Your task to perform on an android device: When is my next appointment? Image 0: 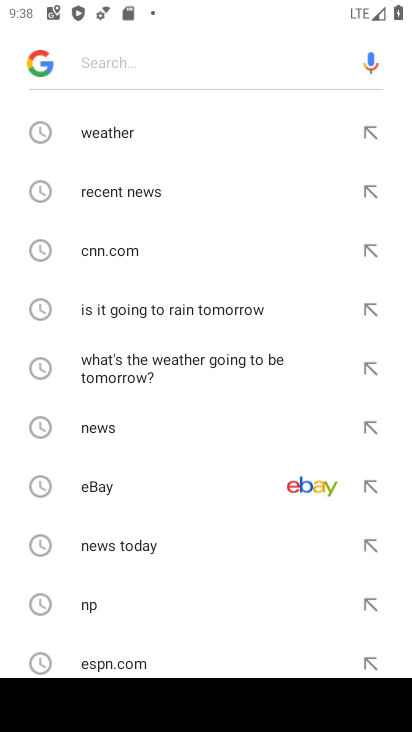
Step 0: press home button
Your task to perform on an android device: When is my next appointment? Image 1: 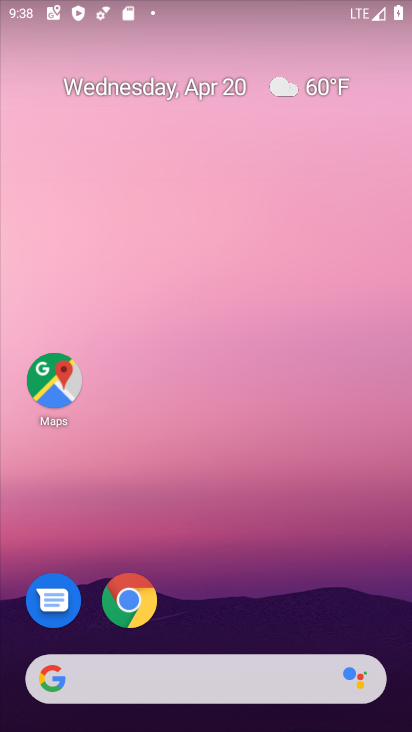
Step 1: click (105, 96)
Your task to perform on an android device: When is my next appointment? Image 2: 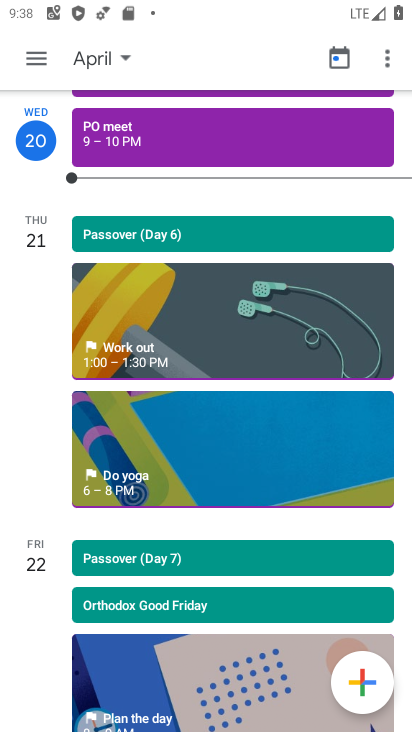
Step 2: click (105, 96)
Your task to perform on an android device: When is my next appointment? Image 3: 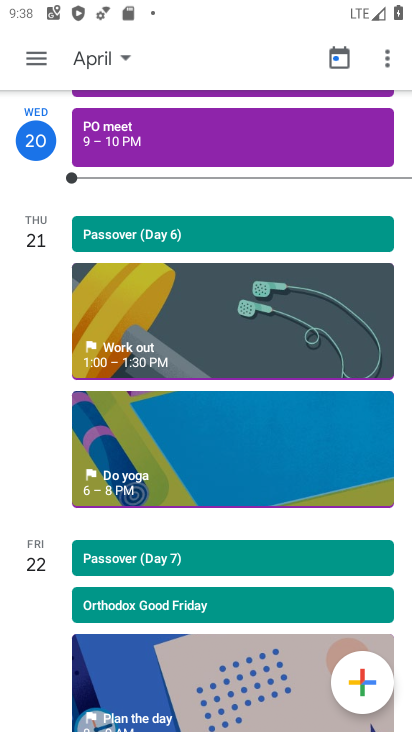
Step 3: click (40, 72)
Your task to perform on an android device: When is my next appointment? Image 4: 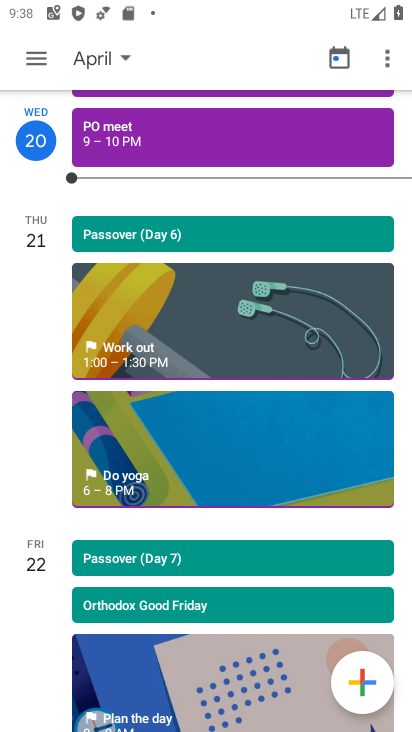
Step 4: click (33, 57)
Your task to perform on an android device: When is my next appointment? Image 5: 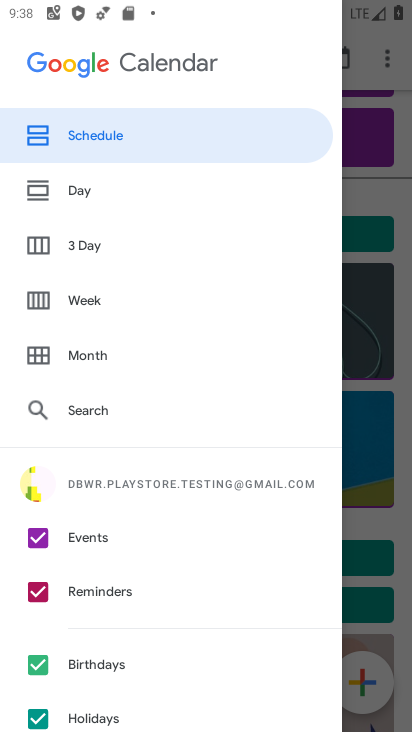
Step 5: drag from (182, 581) to (170, 239)
Your task to perform on an android device: When is my next appointment? Image 6: 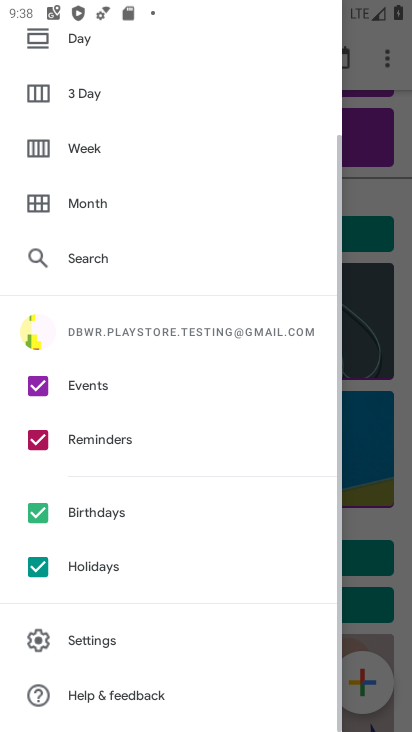
Step 6: drag from (187, 640) to (157, 353)
Your task to perform on an android device: When is my next appointment? Image 7: 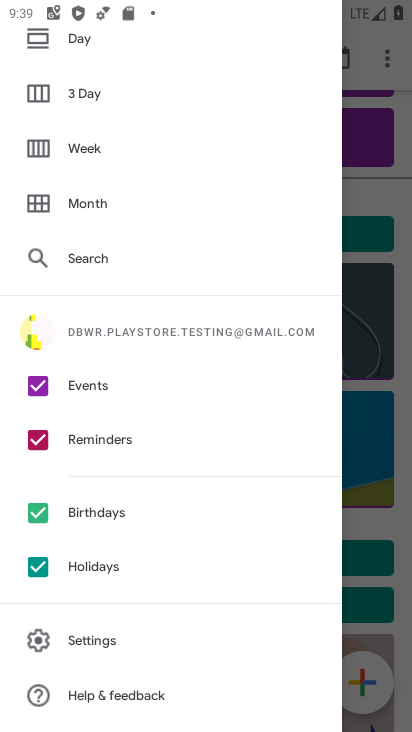
Step 7: click (113, 654)
Your task to perform on an android device: When is my next appointment? Image 8: 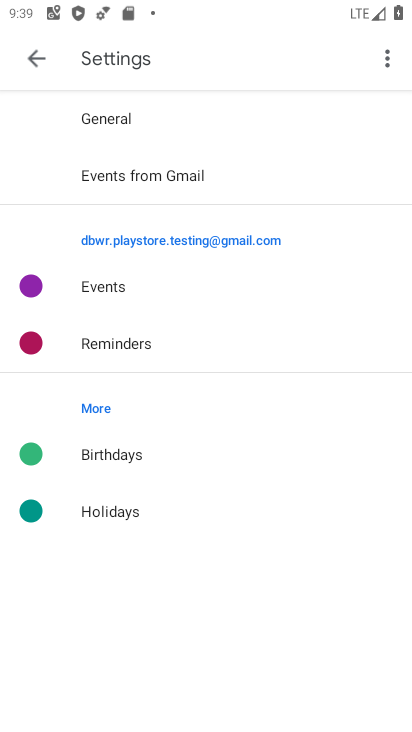
Step 8: click (95, 407)
Your task to perform on an android device: When is my next appointment? Image 9: 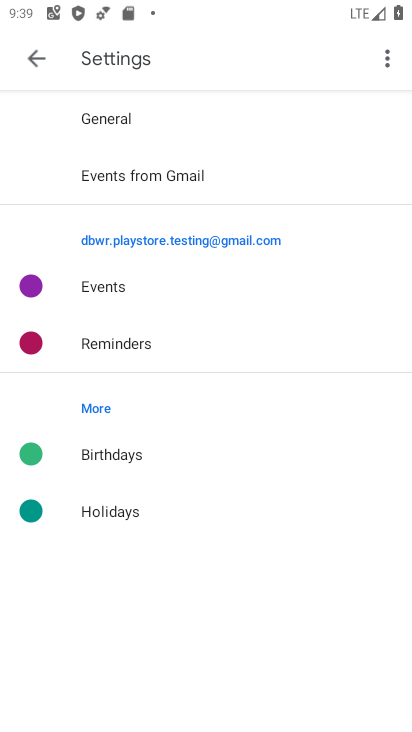
Step 9: click (95, 407)
Your task to perform on an android device: When is my next appointment? Image 10: 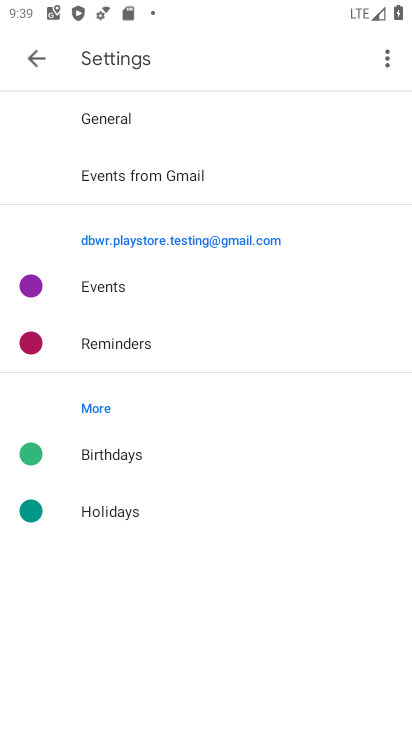
Step 10: click (95, 407)
Your task to perform on an android device: When is my next appointment? Image 11: 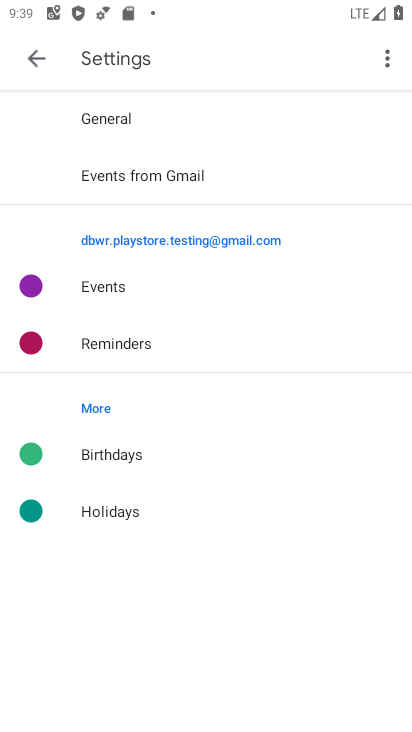
Step 11: click (95, 407)
Your task to perform on an android device: When is my next appointment? Image 12: 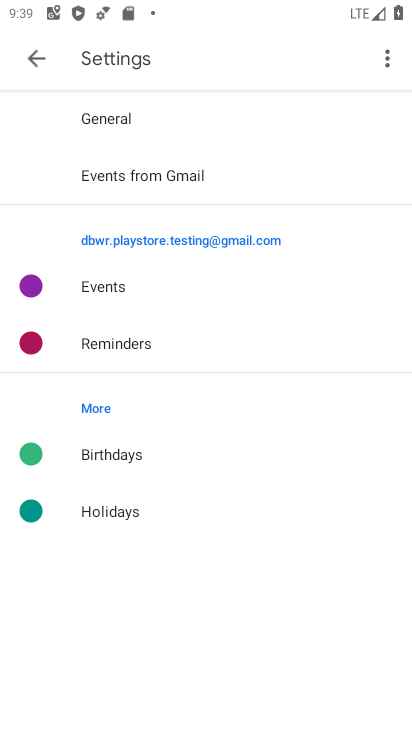
Step 12: click (95, 407)
Your task to perform on an android device: When is my next appointment? Image 13: 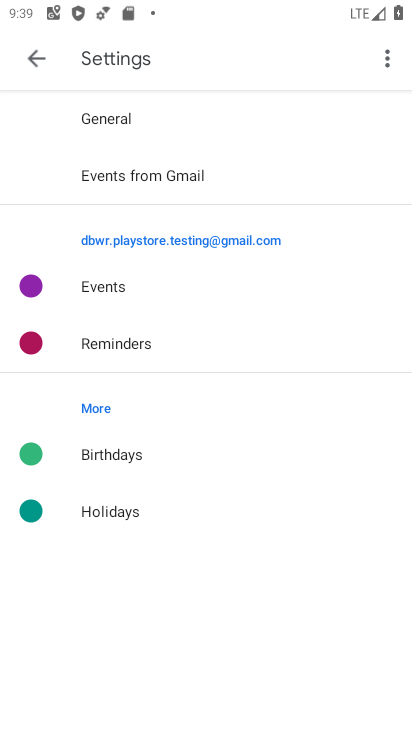
Step 13: click (96, 410)
Your task to perform on an android device: When is my next appointment? Image 14: 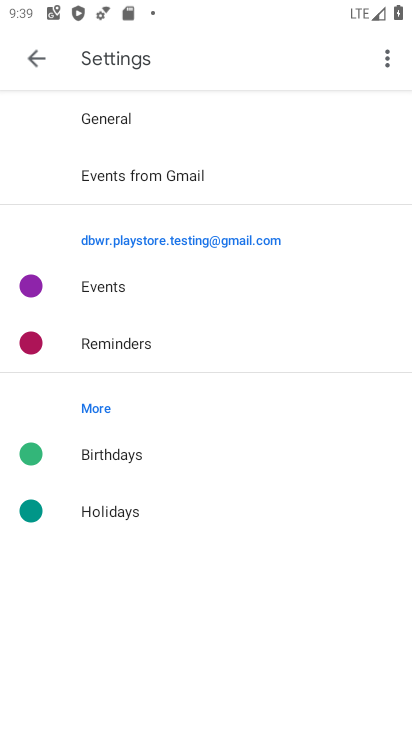
Step 14: click (96, 410)
Your task to perform on an android device: When is my next appointment? Image 15: 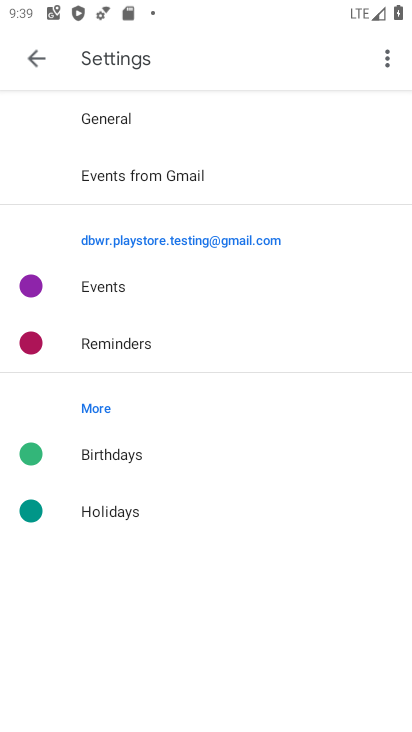
Step 15: click (96, 410)
Your task to perform on an android device: When is my next appointment? Image 16: 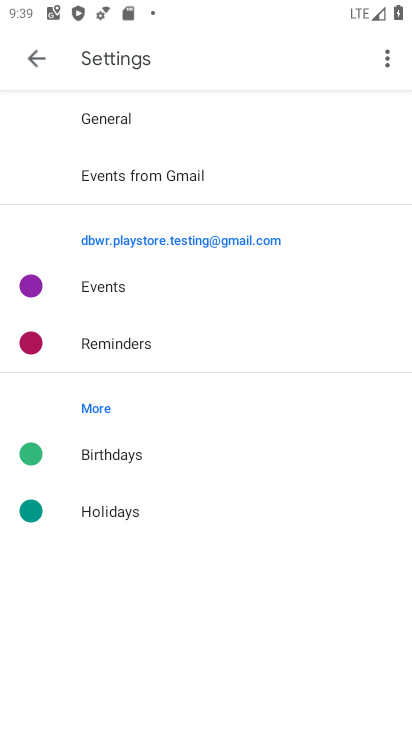
Step 16: click (96, 410)
Your task to perform on an android device: When is my next appointment? Image 17: 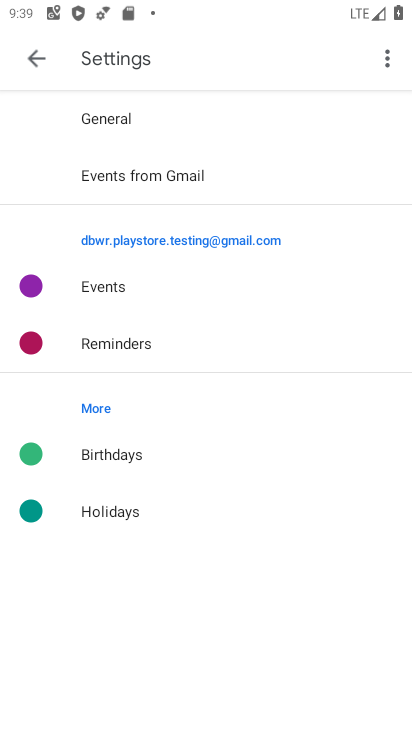
Step 17: click (96, 410)
Your task to perform on an android device: When is my next appointment? Image 18: 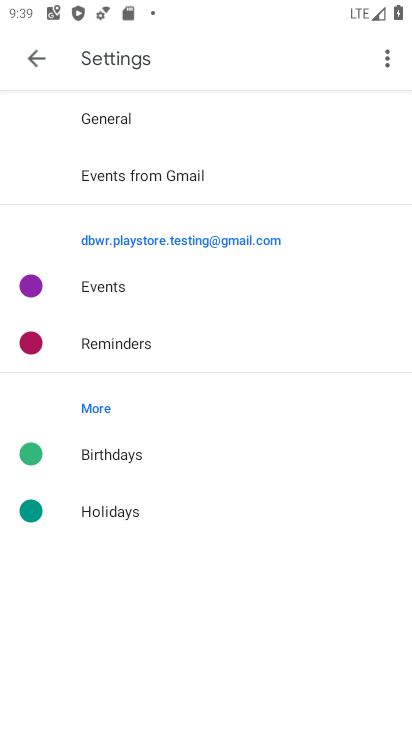
Step 18: click (96, 410)
Your task to perform on an android device: When is my next appointment? Image 19: 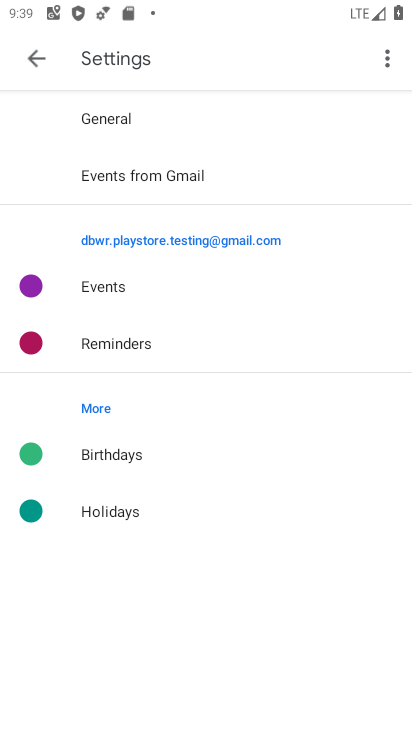
Step 19: click (96, 410)
Your task to perform on an android device: When is my next appointment? Image 20: 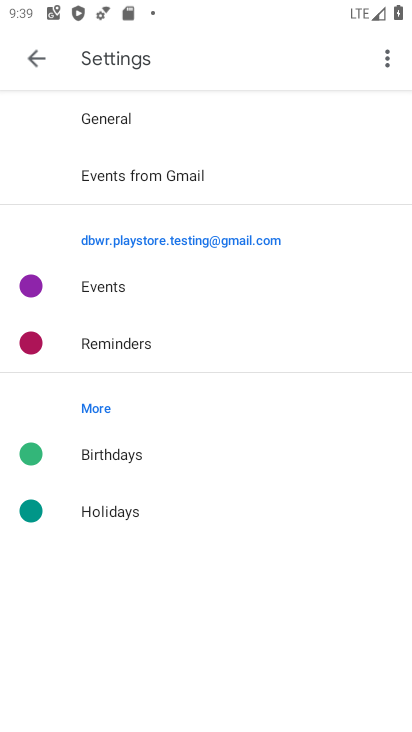
Step 20: task complete